Your task to perform on an android device: Show me the alarms in the clock app Image 0: 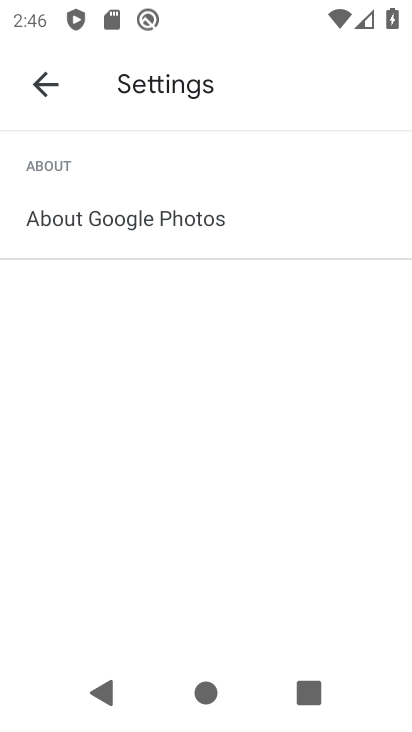
Step 0: press back button
Your task to perform on an android device: Show me the alarms in the clock app Image 1: 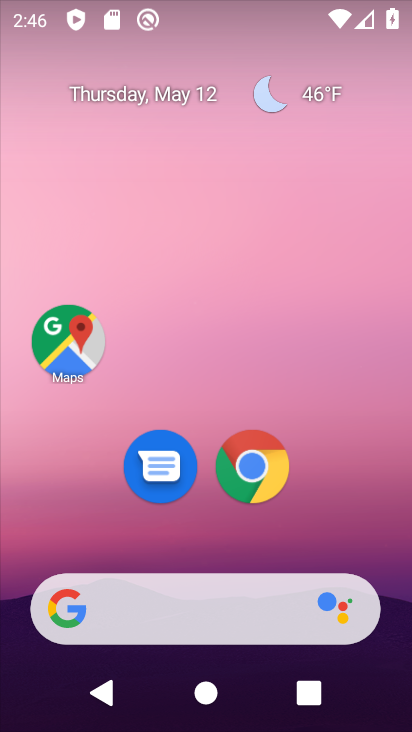
Step 1: drag from (356, 511) to (254, 0)
Your task to perform on an android device: Show me the alarms in the clock app Image 2: 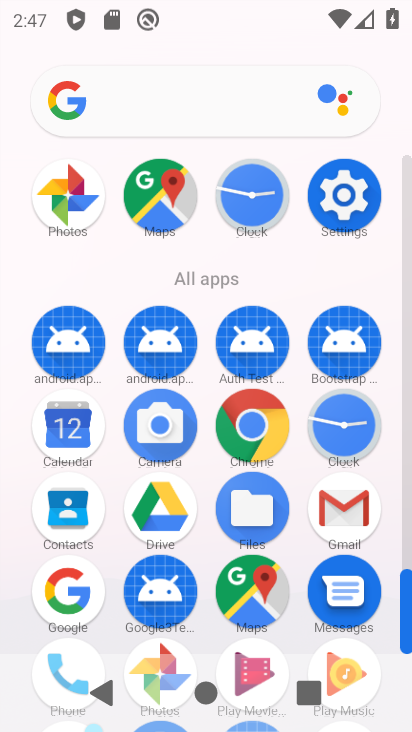
Step 2: click (342, 422)
Your task to perform on an android device: Show me the alarms in the clock app Image 3: 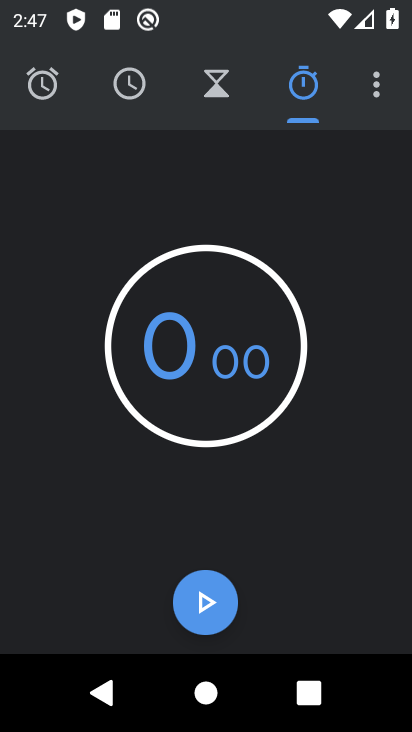
Step 3: click (37, 83)
Your task to perform on an android device: Show me the alarms in the clock app Image 4: 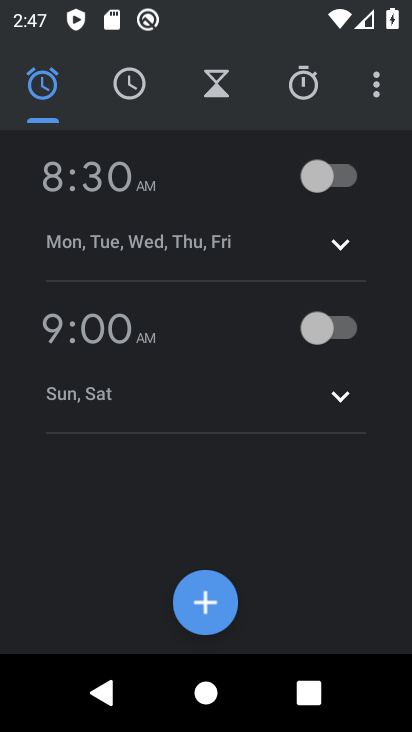
Step 4: task complete